Your task to perform on an android device: Go to Amazon Image 0: 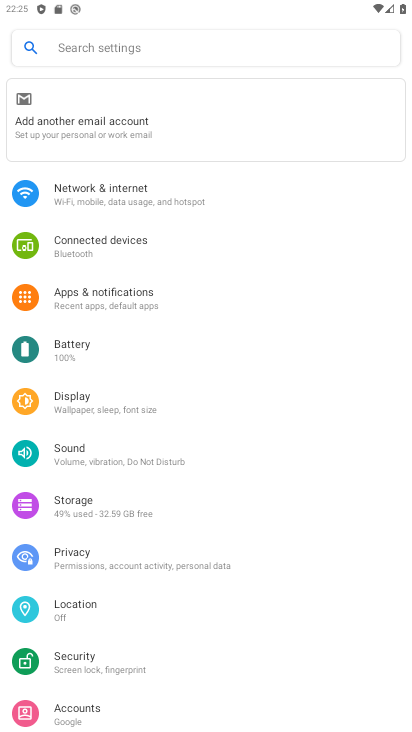
Step 0: press home button
Your task to perform on an android device: Go to Amazon Image 1: 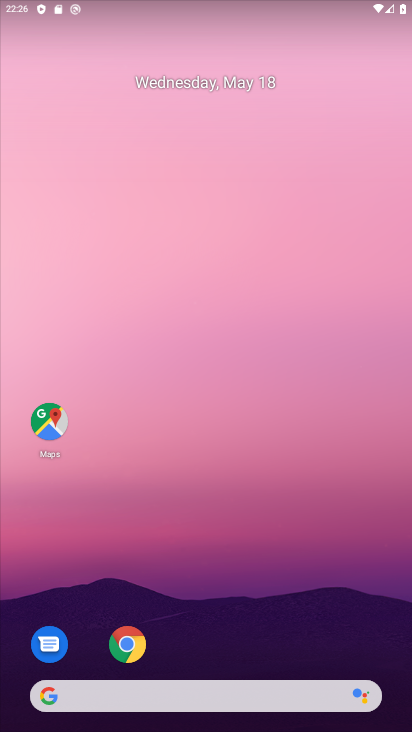
Step 1: click (134, 647)
Your task to perform on an android device: Go to Amazon Image 2: 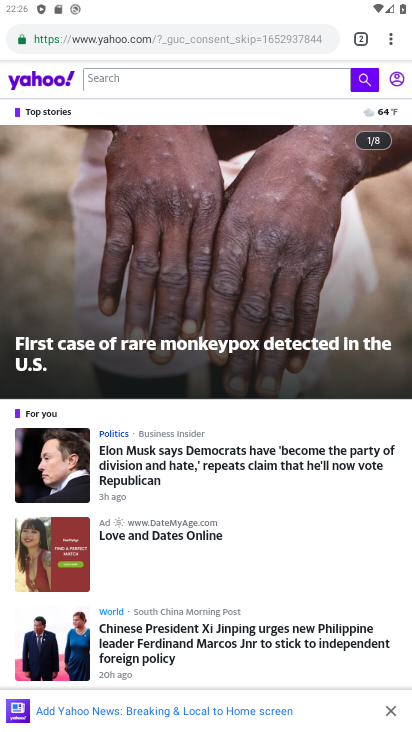
Step 2: click (168, 39)
Your task to perform on an android device: Go to Amazon Image 3: 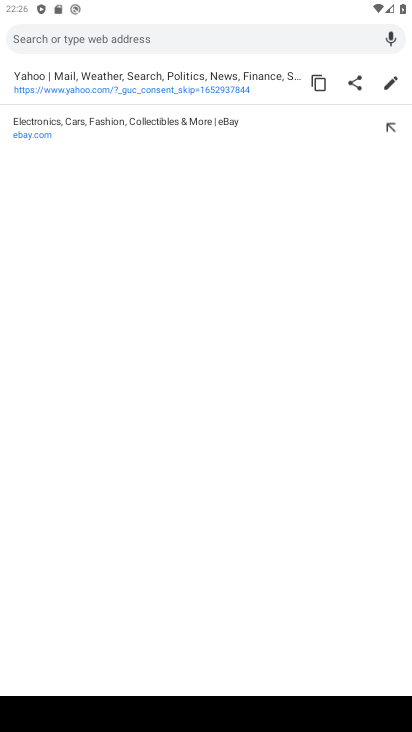
Step 3: type "amazon"
Your task to perform on an android device: Go to Amazon Image 4: 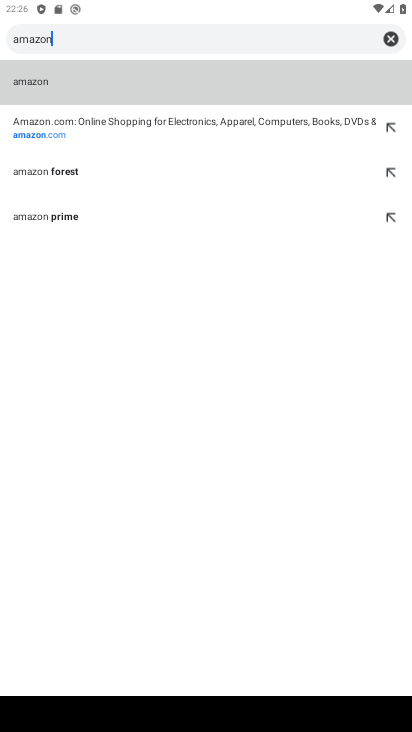
Step 4: click (54, 135)
Your task to perform on an android device: Go to Amazon Image 5: 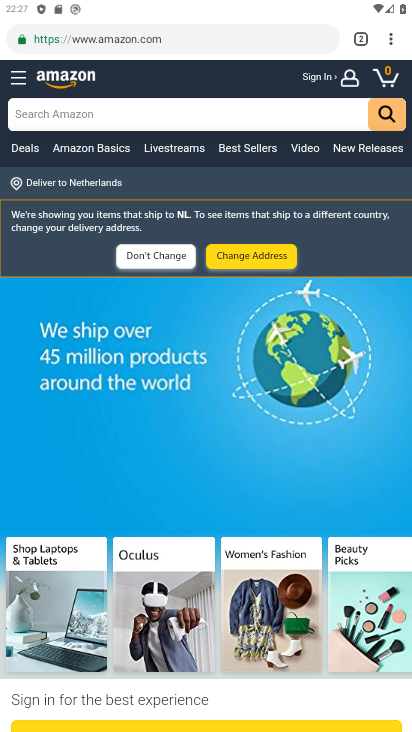
Step 5: task complete